Your task to perform on an android device: install app "Firefox Browser" Image 0: 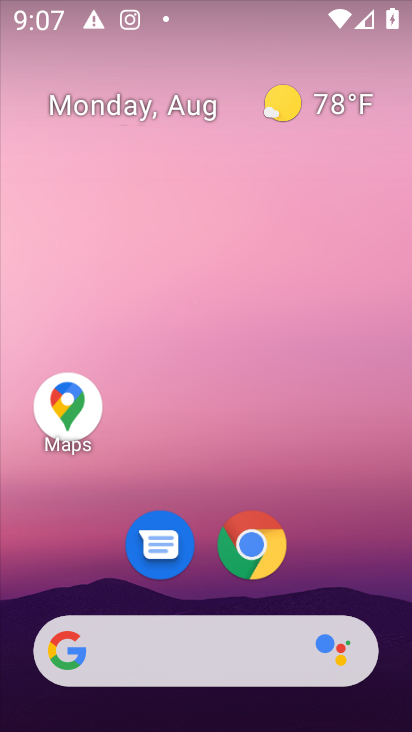
Step 0: press home button
Your task to perform on an android device: install app "Firefox Browser" Image 1: 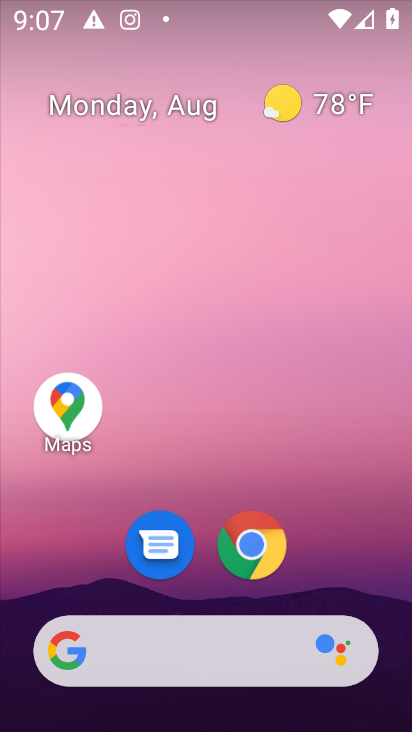
Step 1: drag from (362, 575) to (353, 145)
Your task to perform on an android device: install app "Firefox Browser" Image 2: 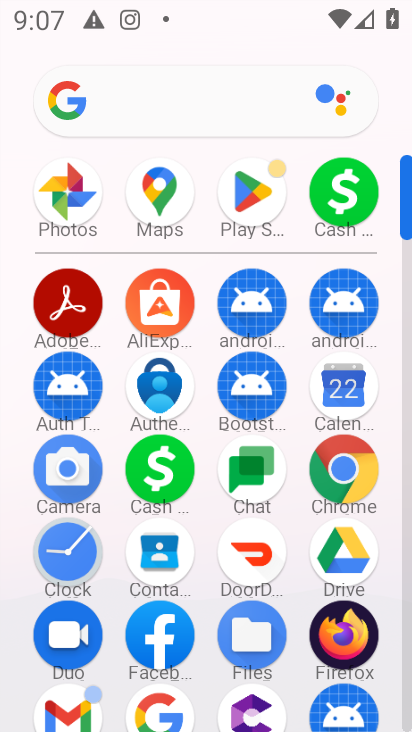
Step 2: click (243, 201)
Your task to perform on an android device: install app "Firefox Browser" Image 3: 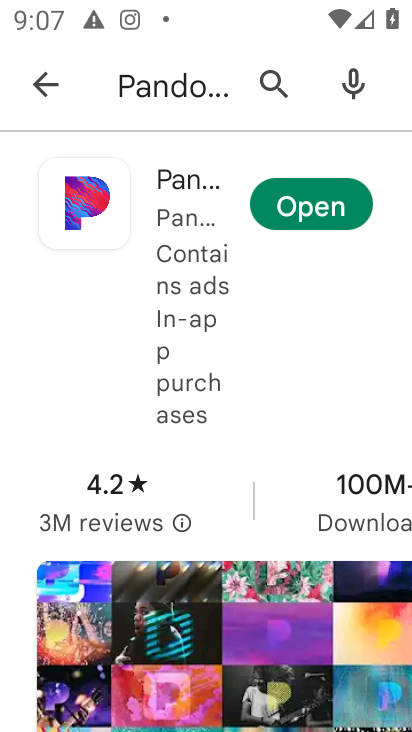
Step 3: press back button
Your task to perform on an android device: install app "Firefox Browser" Image 4: 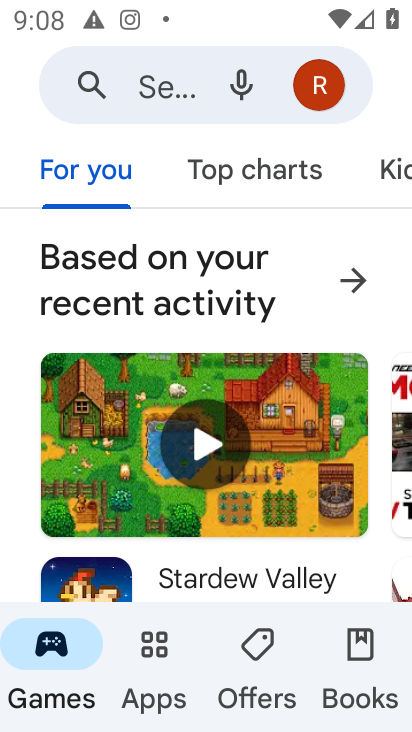
Step 4: click (149, 95)
Your task to perform on an android device: install app "Firefox Browser" Image 5: 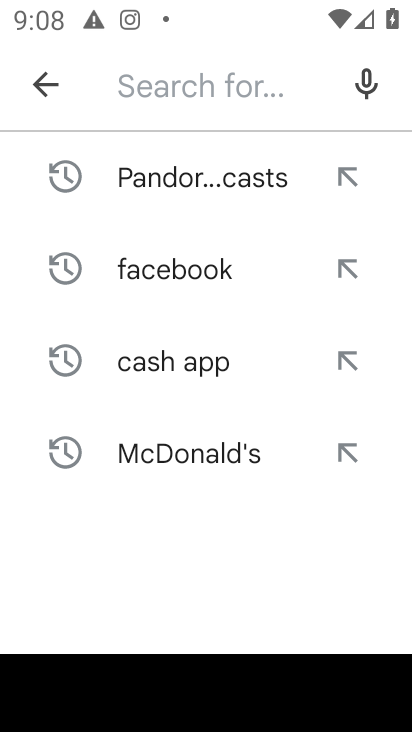
Step 5: type "Firefox Browser"
Your task to perform on an android device: install app "Firefox Browser" Image 6: 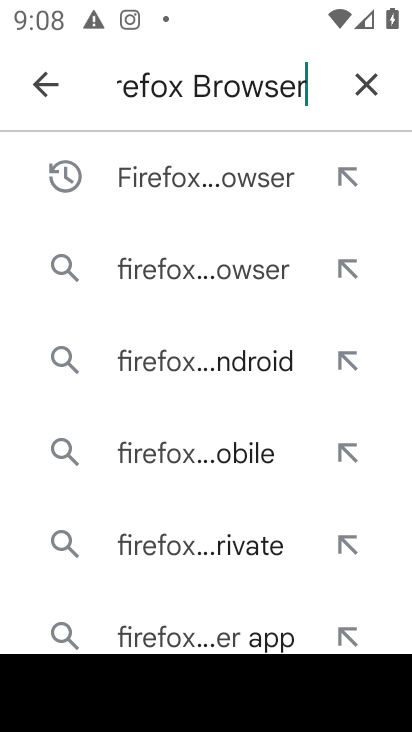
Step 6: press enter
Your task to perform on an android device: install app "Firefox Browser" Image 7: 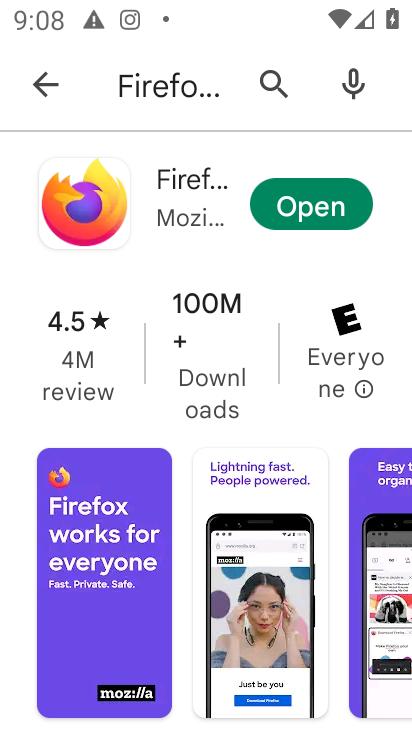
Step 7: task complete